Your task to perform on an android device: Go to location settings Image 0: 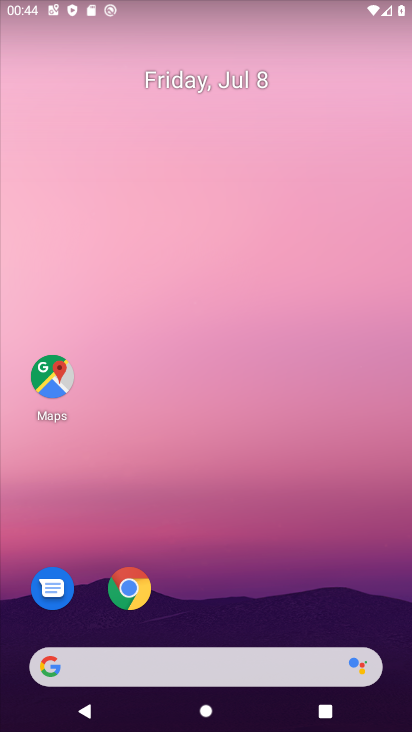
Step 0: drag from (205, 633) to (322, 119)
Your task to perform on an android device: Go to location settings Image 1: 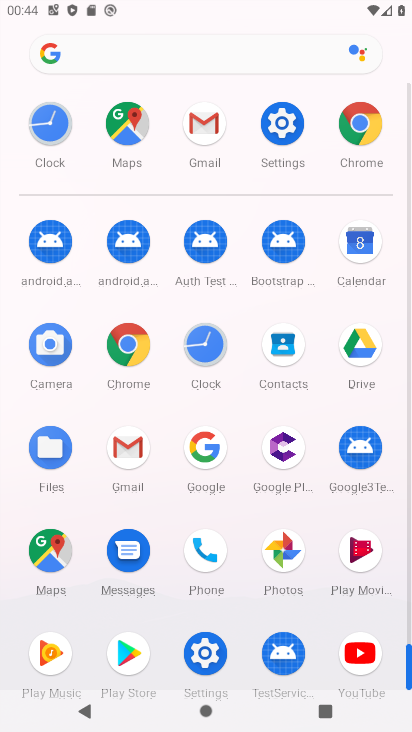
Step 1: click (273, 119)
Your task to perform on an android device: Go to location settings Image 2: 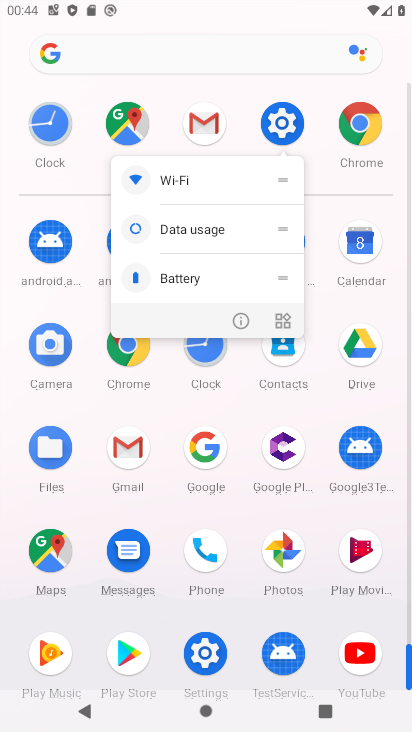
Step 2: click (235, 317)
Your task to perform on an android device: Go to location settings Image 3: 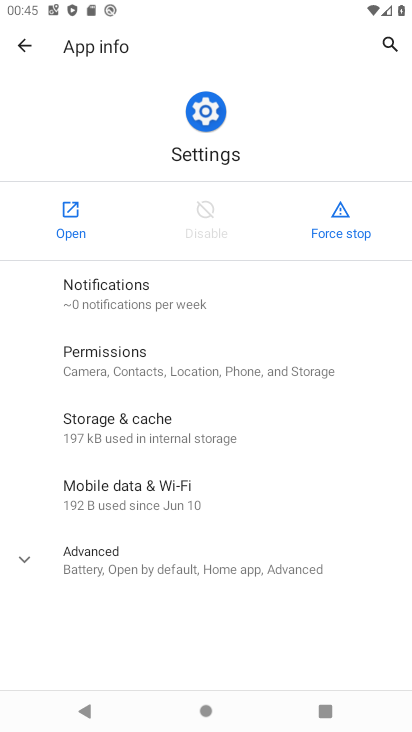
Step 3: click (61, 227)
Your task to perform on an android device: Go to location settings Image 4: 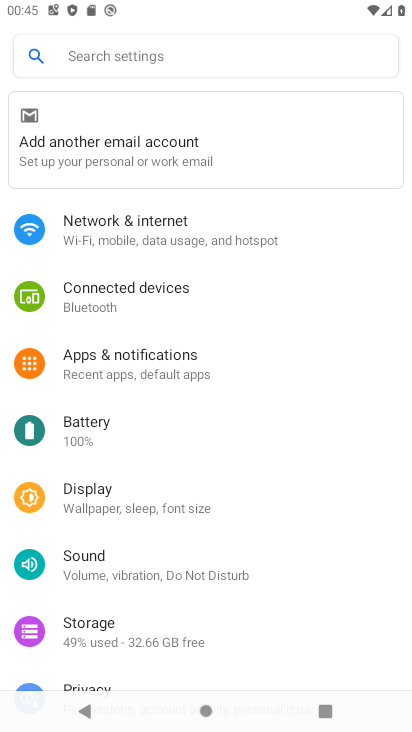
Step 4: drag from (146, 645) to (173, 305)
Your task to perform on an android device: Go to location settings Image 5: 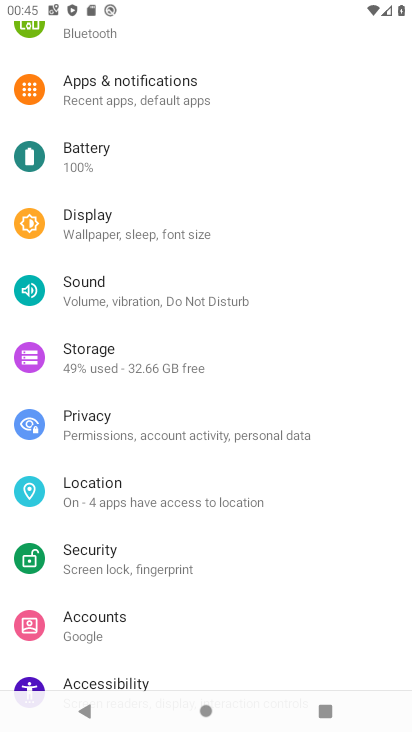
Step 5: click (125, 492)
Your task to perform on an android device: Go to location settings Image 6: 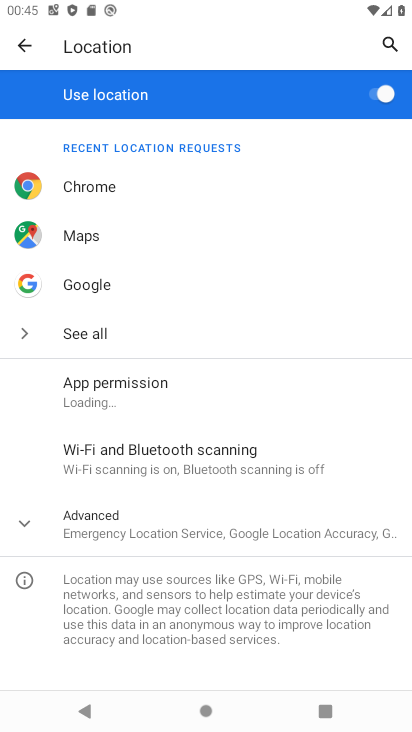
Step 6: task complete